Your task to perform on an android device: Open the phone app and click the voicemail tab. Image 0: 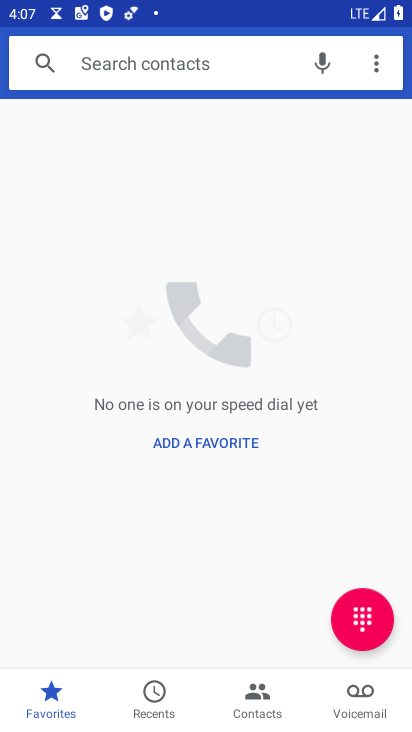
Step 0: press home button
Your task to perform on an android device: Open the phone app and click the voicemail tab. Image 1: 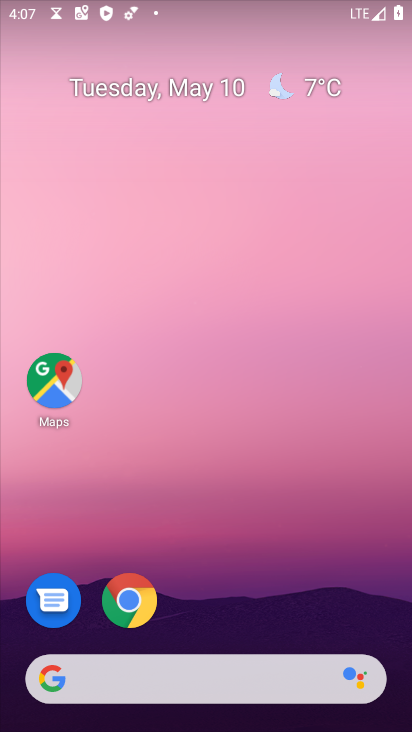
Step 1: drag from (277, 509) to (292, 167)
Your task to perform on an android device: Open the phone app and click the voicemail tab. Image 2: 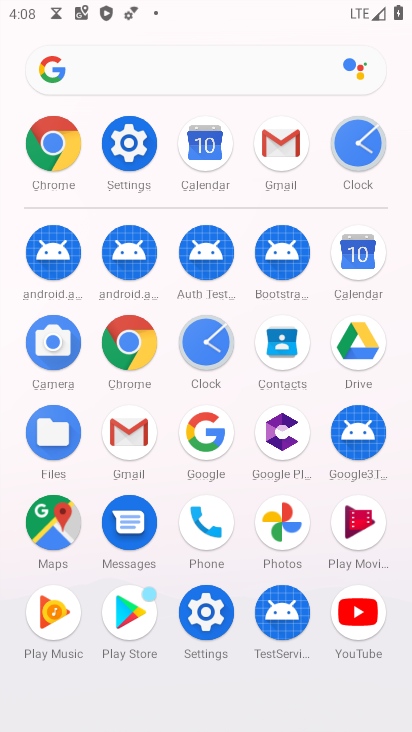
Step 2: click (213, 534)
Your task to perform on an android device: Open the phone app and click the voicemail tab. Image 3: 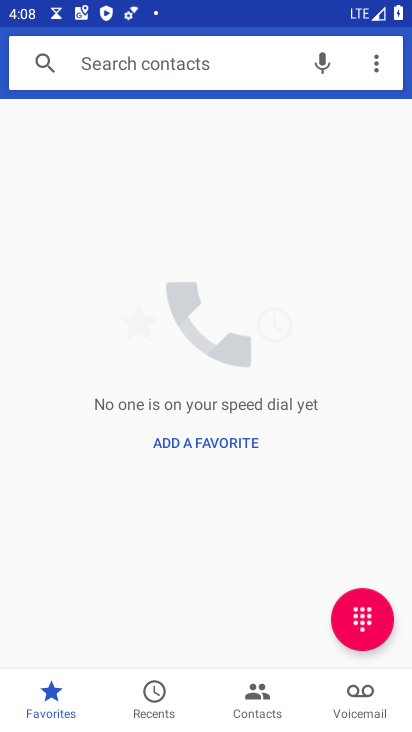
Step 3: click (368, 67)
Your task to perform on an android device: Open the phone app and click the voicemail tab. Image 4: 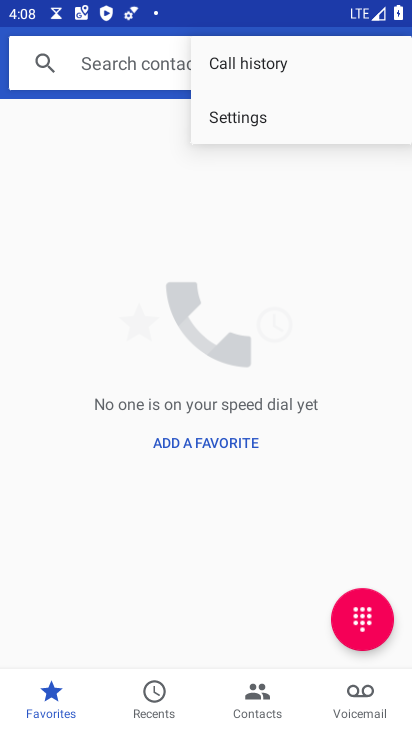
Step 4: click (343, 119)
Your task to perform on an android device: Open the phone app and click the voicemail tab. Image 5: 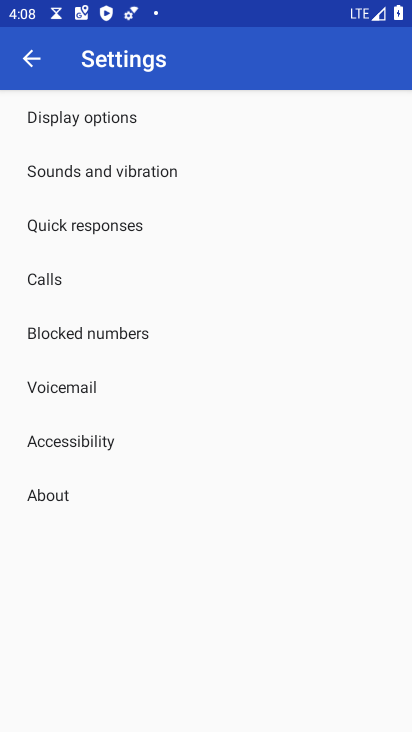
Step 5: click (57, 60)
Your task to perform on an android device: Open the phone app and click the voicemail tab. Image 6: 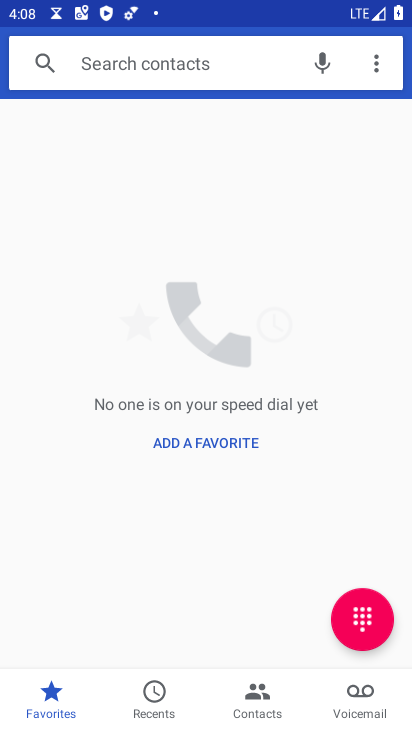
Step 6: click (354, 699)
Your task to perform on an android device: Open the phone app and click the voicemail tab. Image 7: 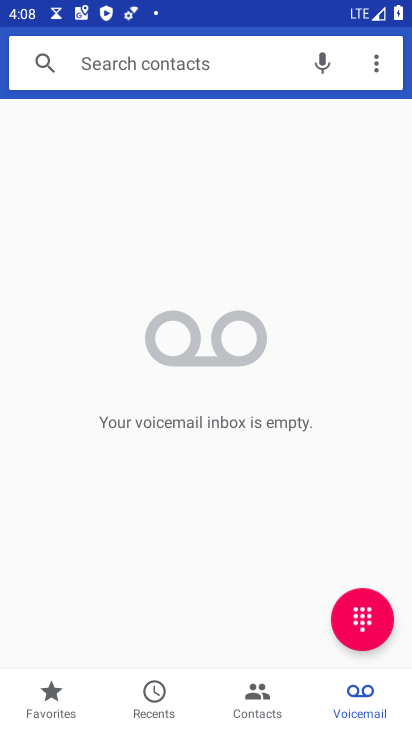
Step 7: task complete